Your task to perform on an android device: open sync settings in chrome Image 0: 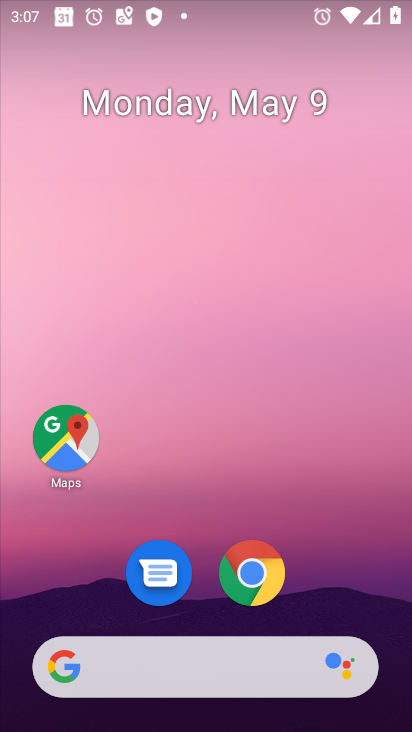
Step 0: click (237, 582)
Your task to perform on an android device: open sync settings in chrome Image 1: 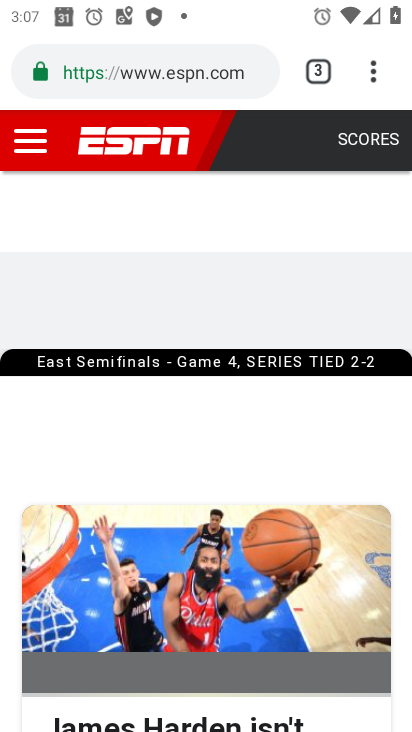
Step 1: click (378, 74)
Your task to perform on an android device: open sync settings in chrome Image 2: 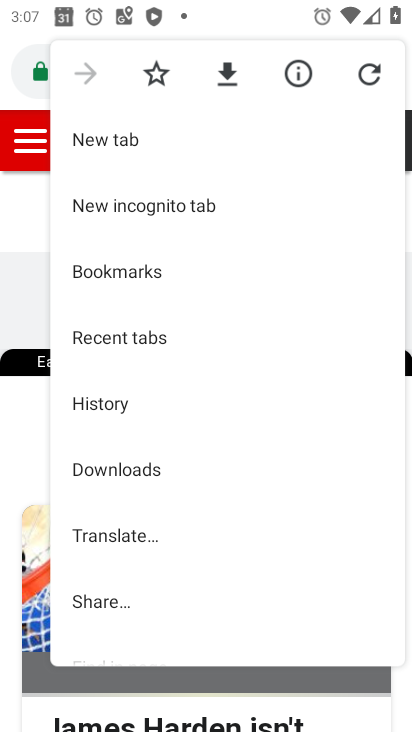
Step 2: drag from (132, 607) to (94, 225)
Your task to perform on an android device: open sync settings in chrome Image 3: 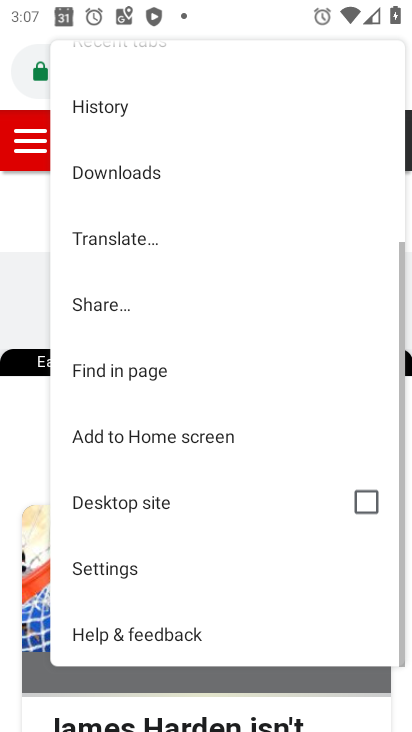
Step 3: click (91, 566)
Your task to perform on an android device: open sync settings in chrome Image 4: 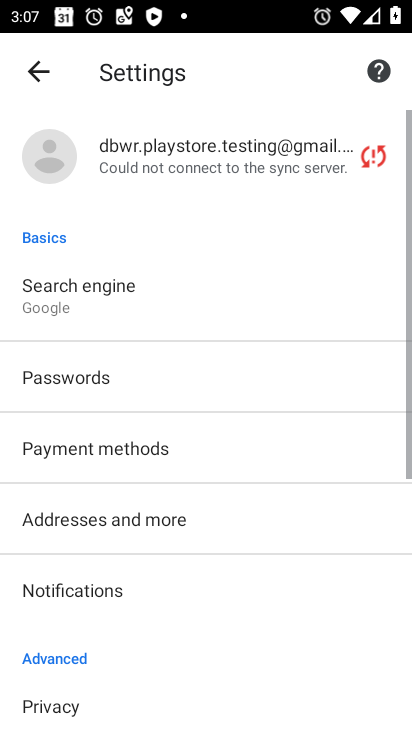
Step 4: click (226, 162)
Your task to perform on an android device: open sync settings in chrome Image 5: 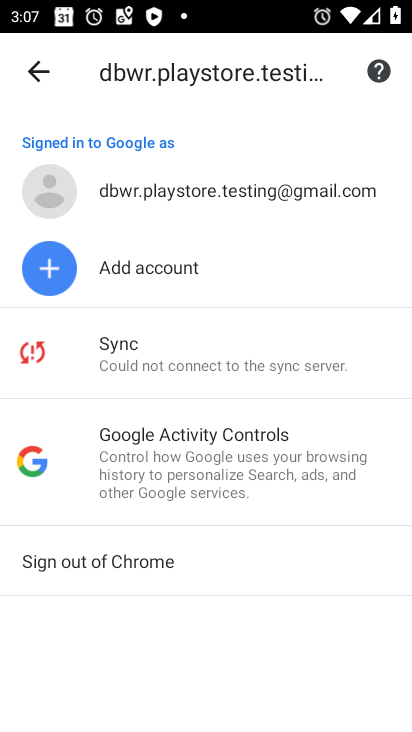
Step 5: drag from (176, 523) to (184, 158)
Your task to perform on an android device: open sync settings in chrome Image 6: 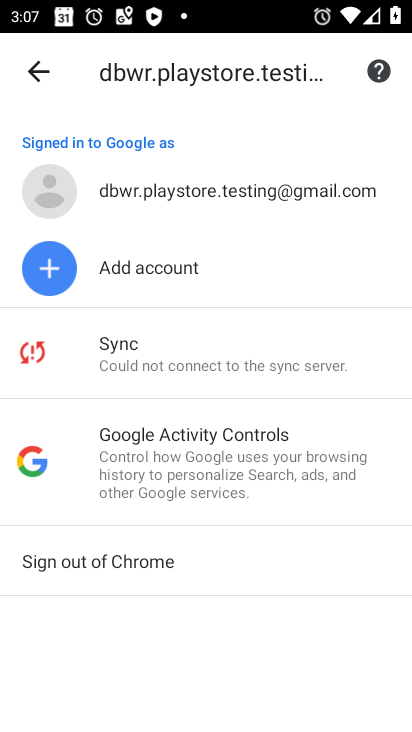
Step 6: click (120, 355)
Your task to perform on an android device: open sync settings in chrome Image 7: 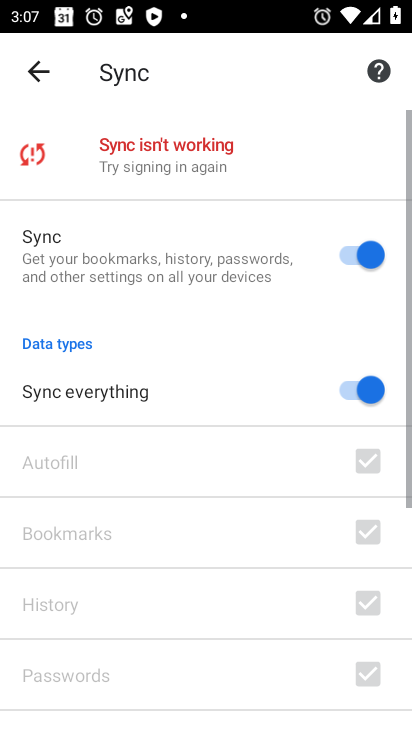
Step 7: task complete